Your task to perform on an android device: Go to battery settings Image 0: 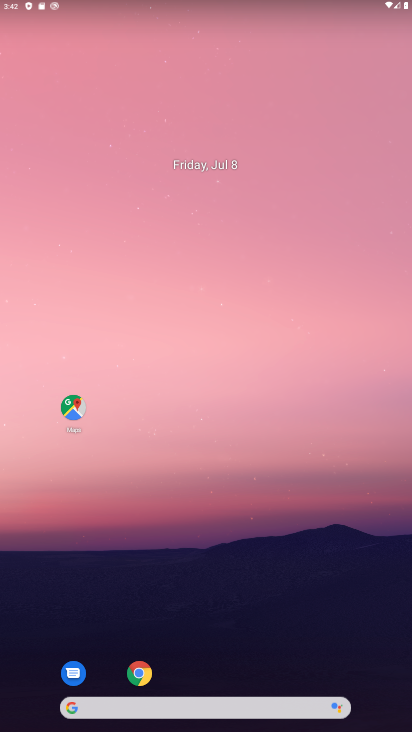
Step 0: drag from (242, 666) to (365, 86)
Your task to perform on an android device: Go to battery settings Image 1: 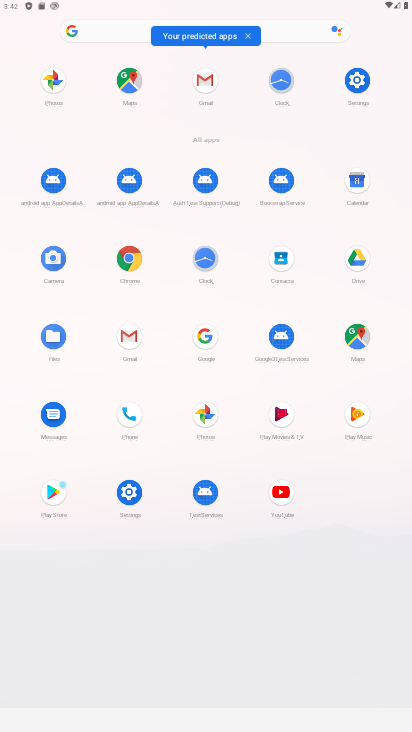
Step 1: click (136, 496)
Your task to perform on an android device: Go to battery settings Image 2: 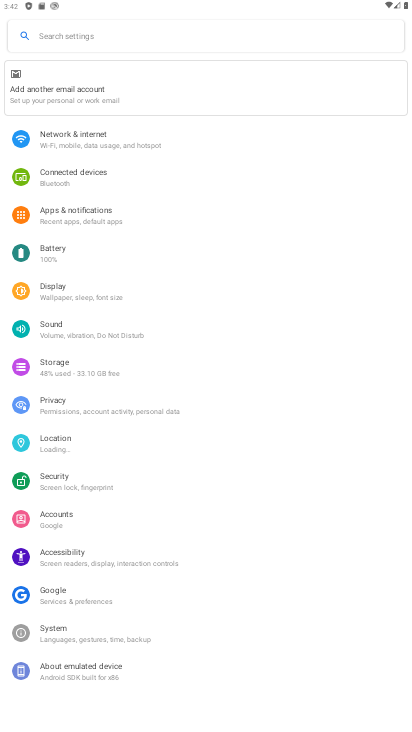
Step 2: click (87, 259)
Your task to perform on an android device: Go to battery settings Image 3: 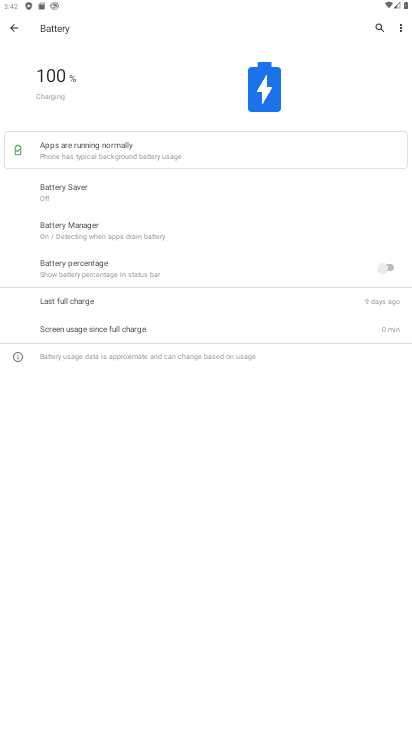
Step 3: task complete